Your task to perform on an android device: star an email in the gmail app Image 0: 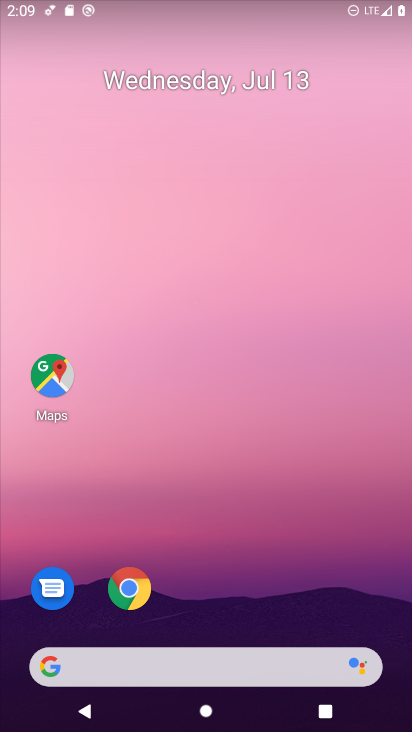
Step 0: click (251, 270)
Your task to perform on an android device: star an email in the gmail app Image 1: 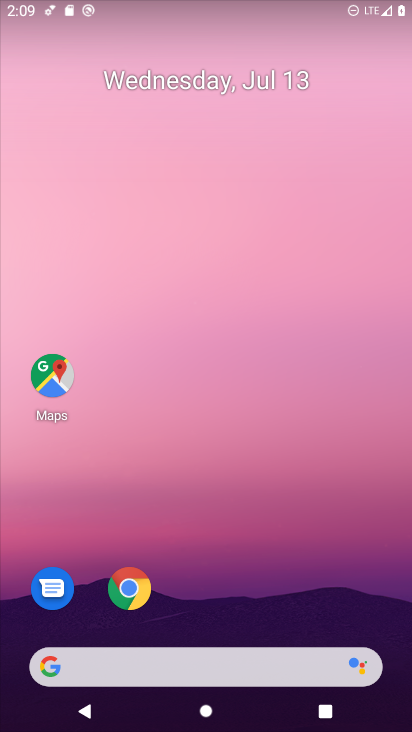
Step 1: drag from (188, 486) to (188, 121)
Your task to perform on an android device: star an email in the gmail app Image 2: 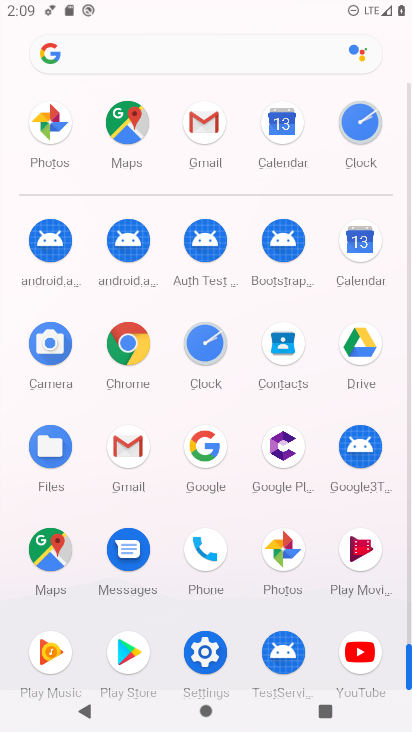
Step 2: click (136, 443)
Your task to perform on an android device: star an email in the gmail app Image 3: 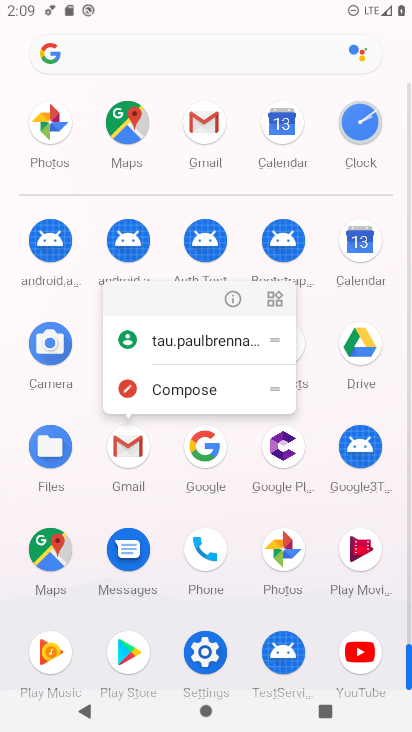
Step 3: click (228, 295)
Your task to perform on an android device: star an email in the gmail app Image 4: 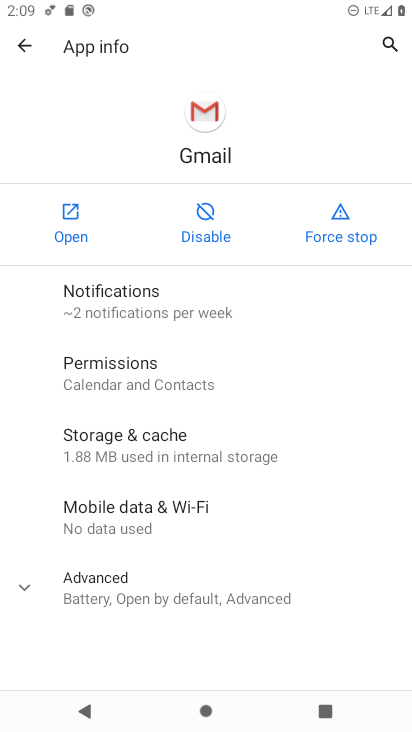
Step 4: click (63, 219)
Your task to perform on an android device: star an email in the gmail app Image 5: 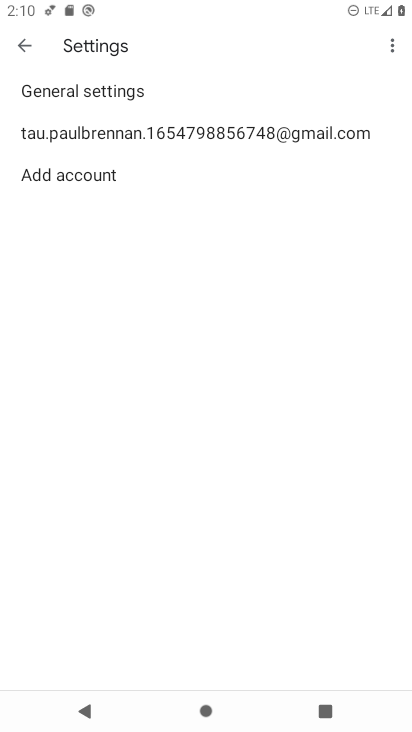
Step 5: click (173, 135)
Your task to perform on an android device: star an email in the gmail app Image 6: 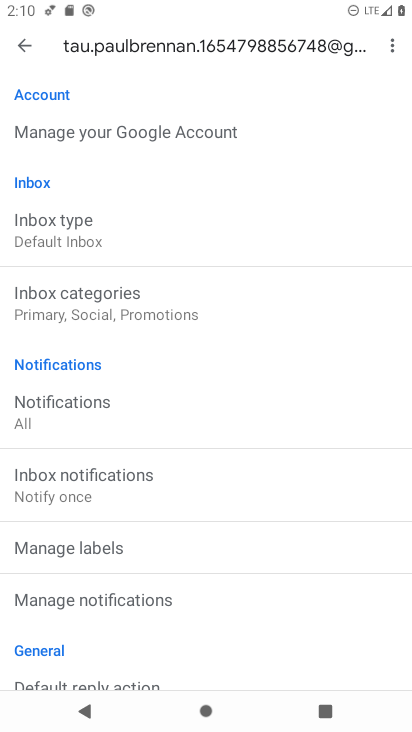
Step 6: click (10, 37)
Your task to perform on an android device: star an email in the gmail app Image 7: 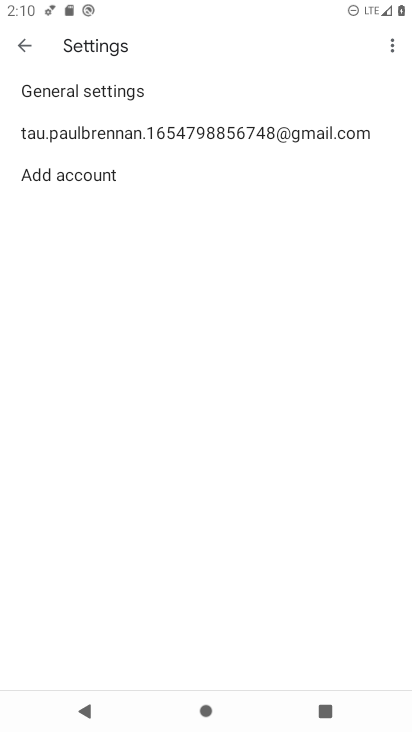
Step 7: click (15, 37)
Your task to perform on an android device: star an email in the gmail app Image 8: 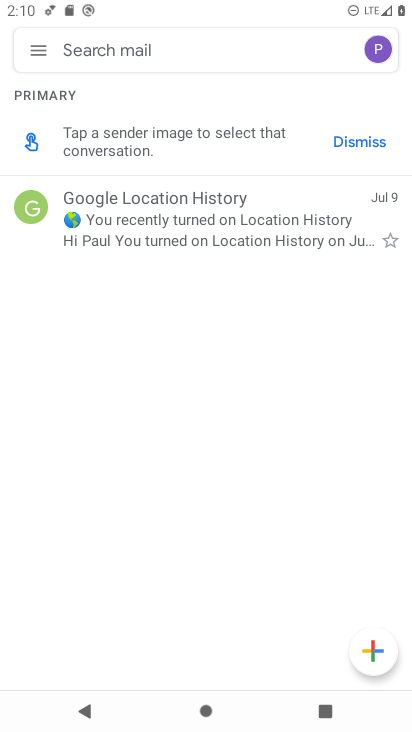
Step 8: click (34, 49)
Your task to perform on an android device: star an email in the gmail app Image 9: 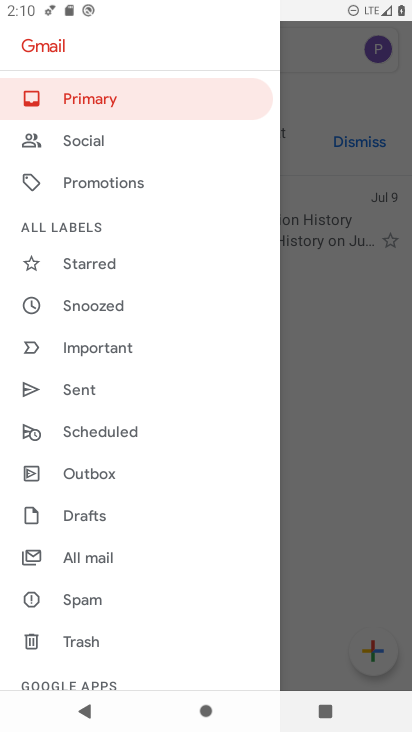
Step 9: click (79, 261)
Your task to perform on an android device: star an email in the gmail app Image 10: 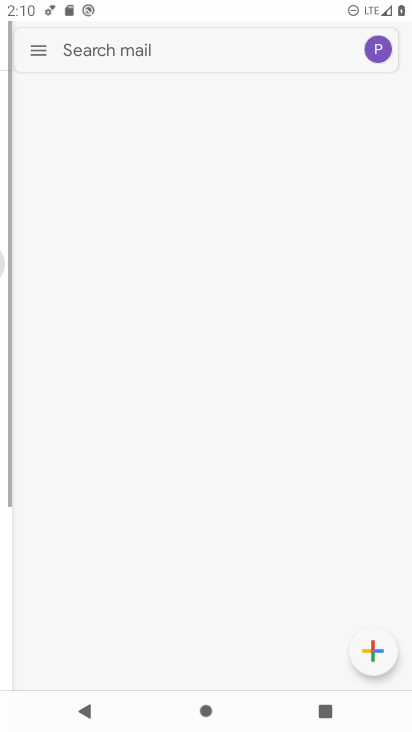
Step 10: click (330, 420)
Your task to perform on an android device: star an email in the gmail app Image 11: 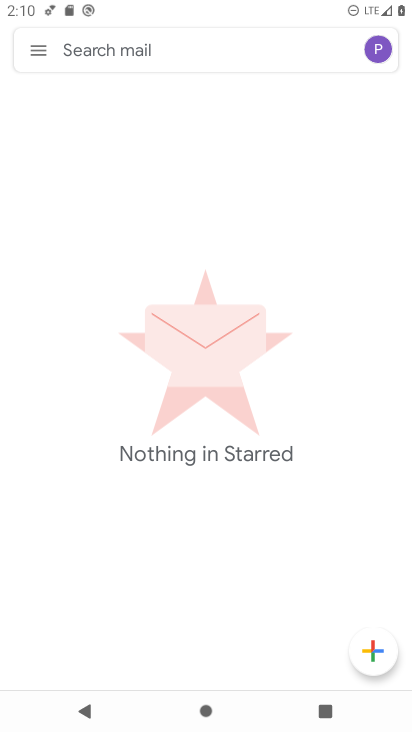
Step 11: task complete